Your task to perform on an android device: open app "Facebook" (install if not already installed) Image 0: 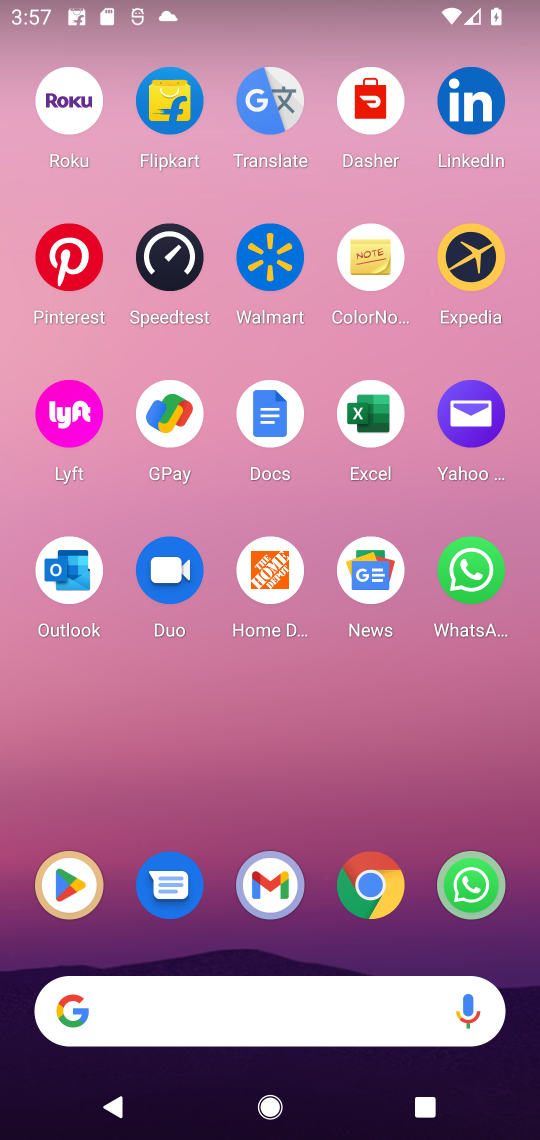
Step 0: click (86, 878)
Your task to perform on an android device: open app "Facebook" (install if not already installed) Image 1: 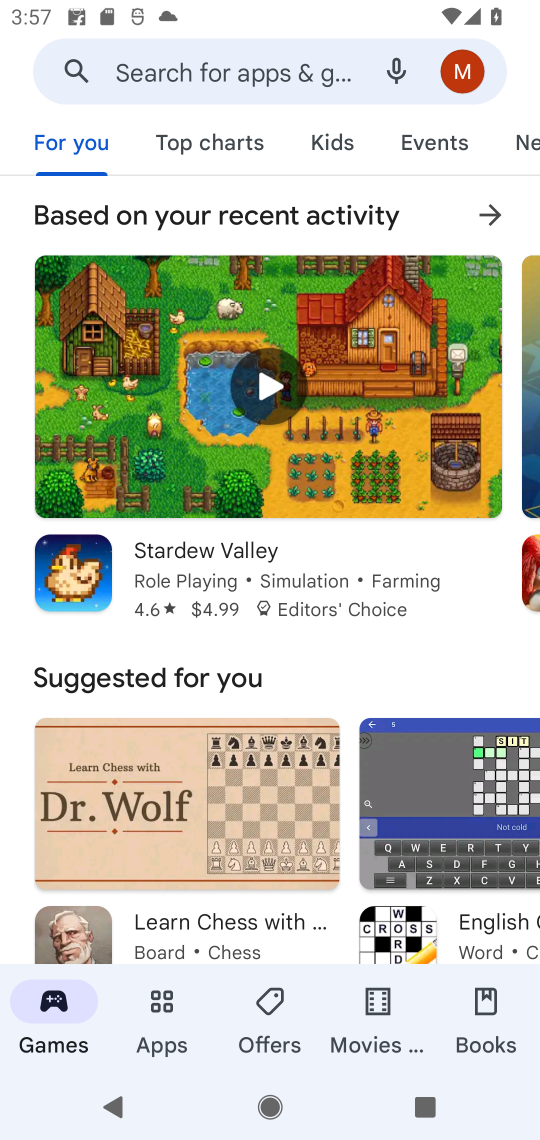
Step 1: click (296, 77)
Your task to perform on an android device: open app "Facebook" (install if not already installed) Image 2: 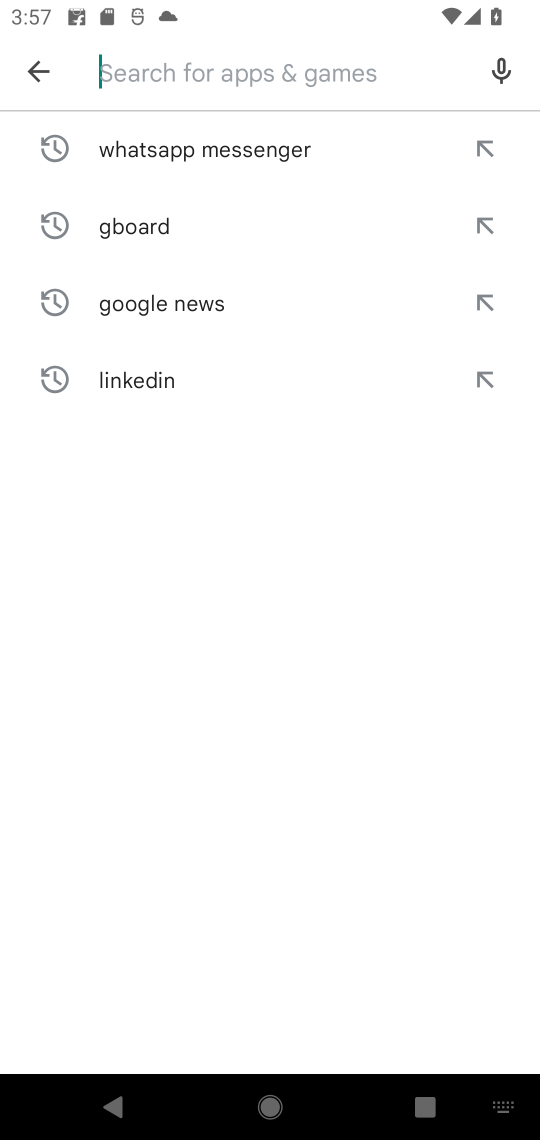
Step 2: type "Facebook"
Your task to perform on an android device: open app "Facebook" (install if not already installed) Image 3: 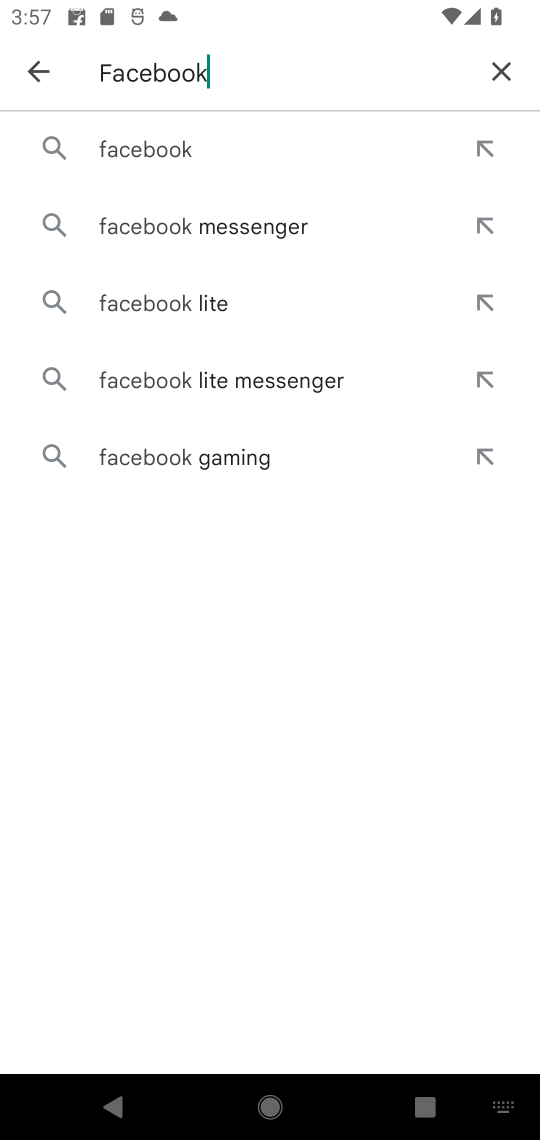
Step 3: click (186, 149)
Your task to perform on an android device: open app "Facebook" (install if not already installed) Image 4: 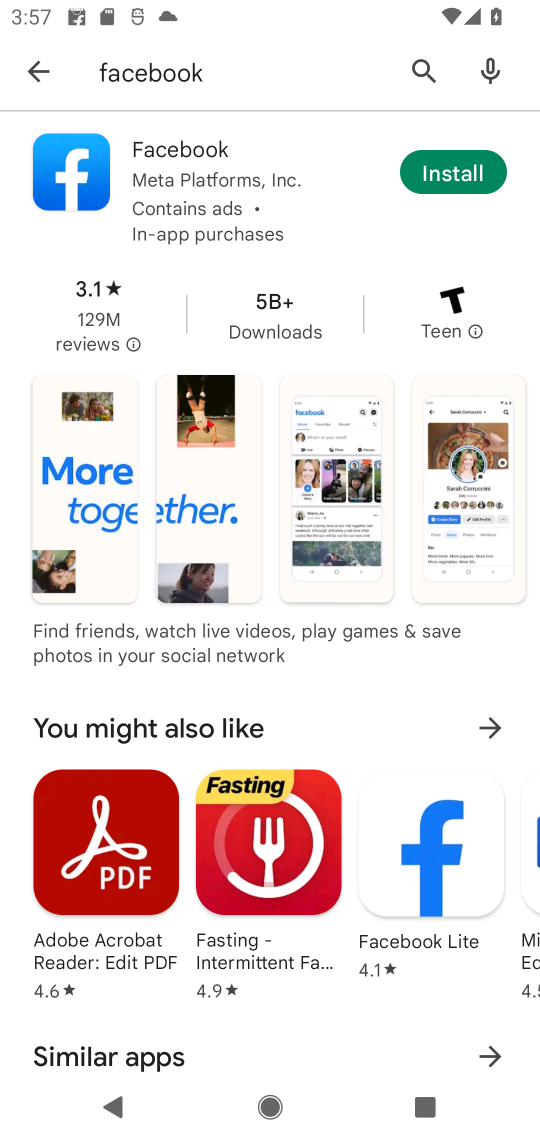
Step 4: click (454, 186)
Your task to perform on an android device: open app "Facebook" (install if not already installed) Image 5: 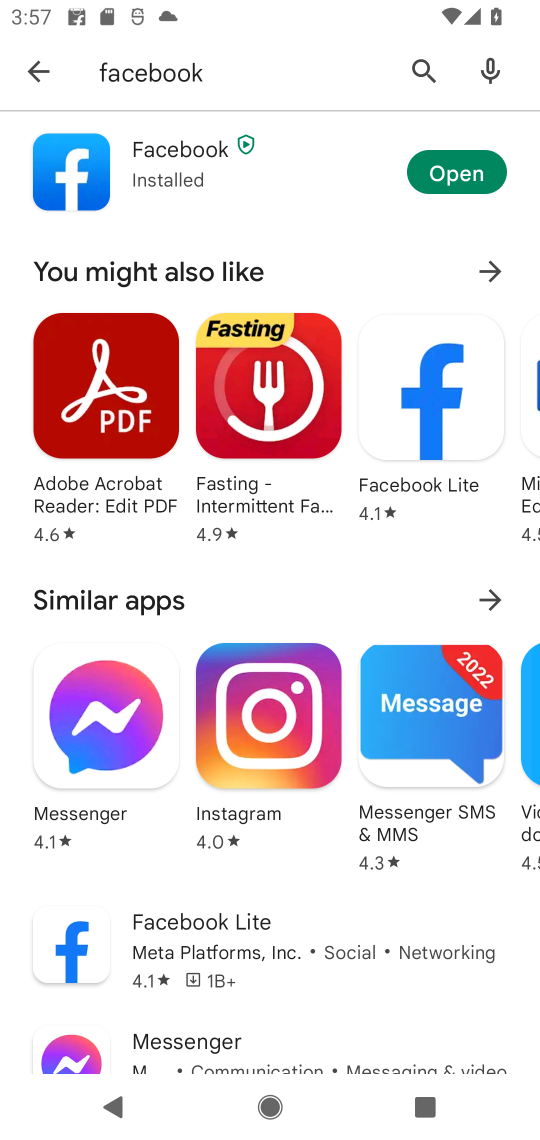
Step 5: click (454, 186)
Your task to perform on an android device: open app "Facebook" (install if not already installed) Image 6: 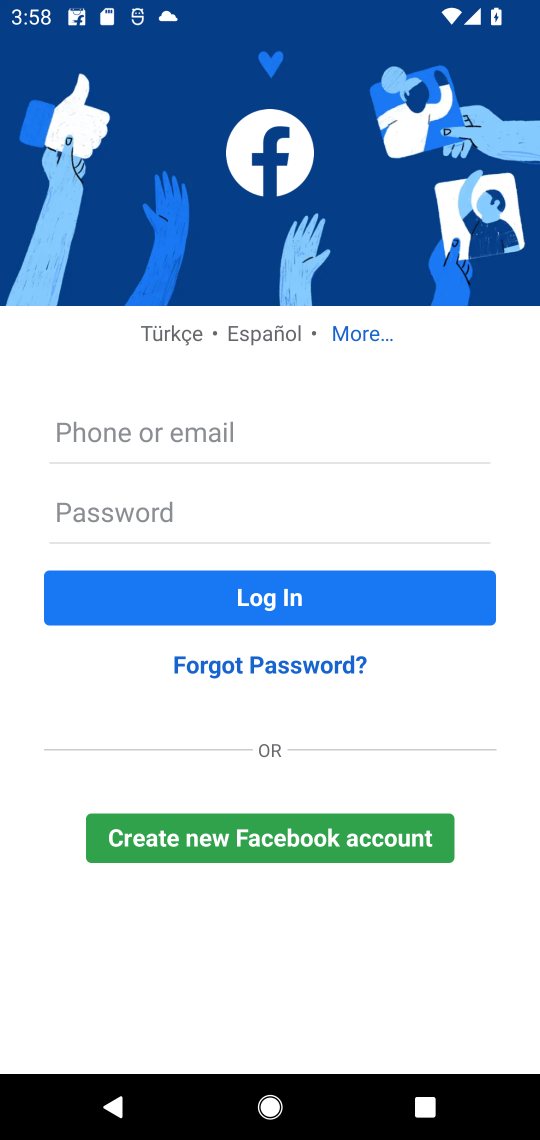
Step 6: task complete